Your task to perform on an android device: Search for sushi restaurants on Maps Image 0: 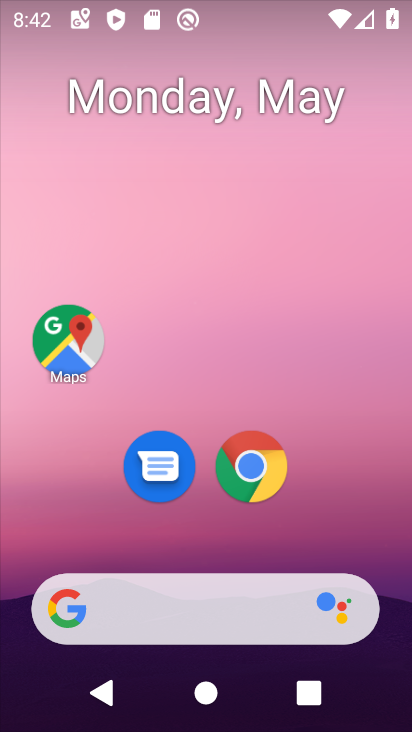
Step 0: drag from (243, 644) to (284, 224)
Your task to perform on an android device: Search for sushi restaurants on Maps Image 1: 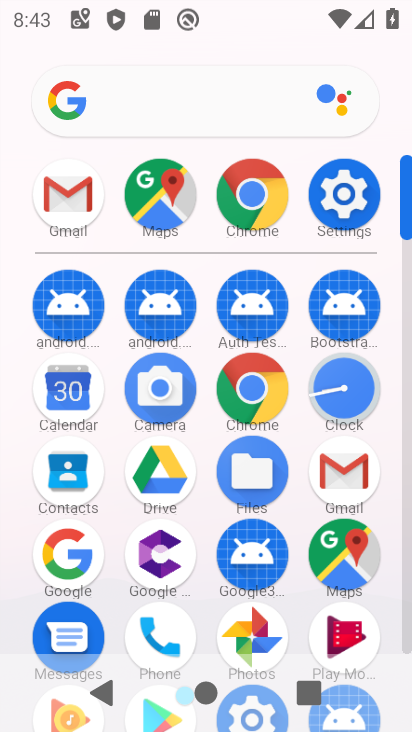
Step 1: click (169, 198)
Your task to perform on an android device: Search for sushi restaurants on Maps Image 2: 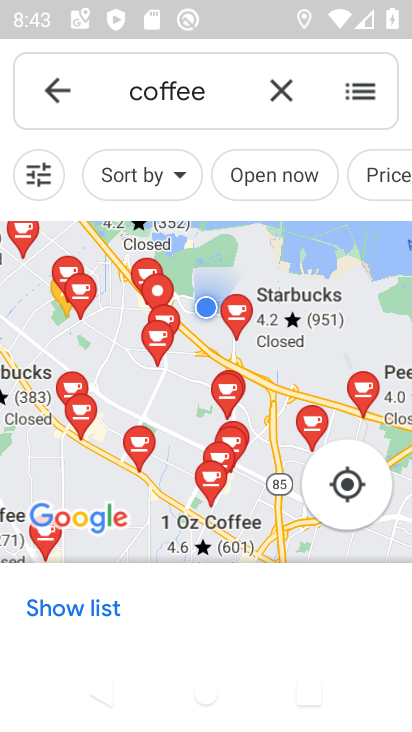
Step 2: click (284, 90)
Your task to perform on an android device: Search for sushi restaurants on Maps Image 3: 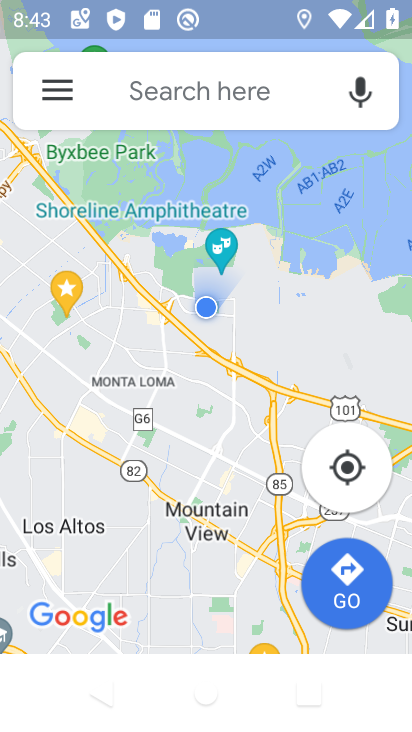
Step 3: click (193, 88)
Your task to perform on an android device: Search for sushi restaurants on Maps Image 4: 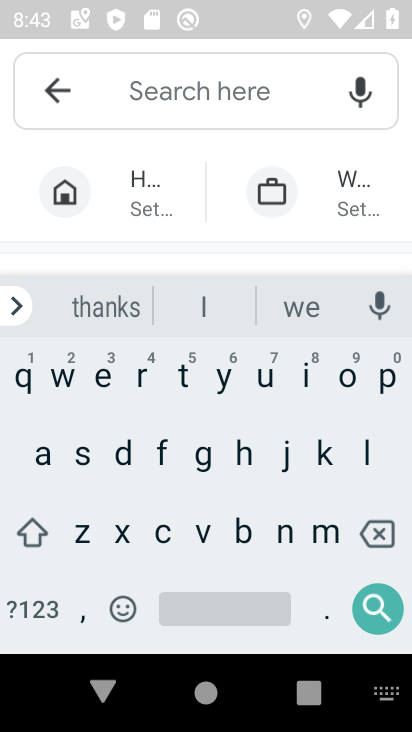
Step 4: click (84, 458)
Your task to perform on an android device: Search for sushi restaurants on Maps Image 5: 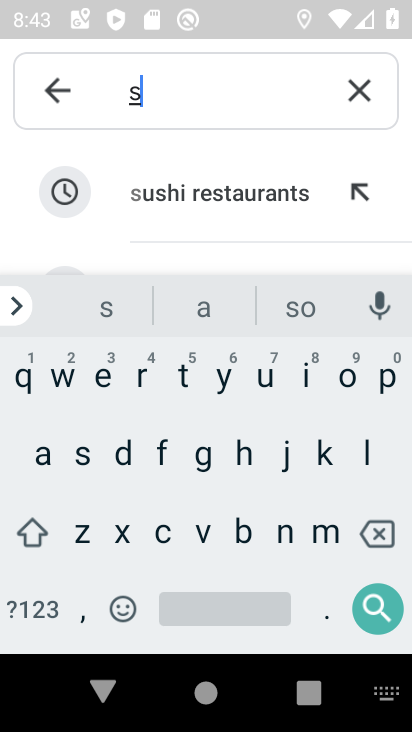
Step 5: click (269, 383)
Your task to perform on an android device: Search for sushi restaurants on Maps Image 6: 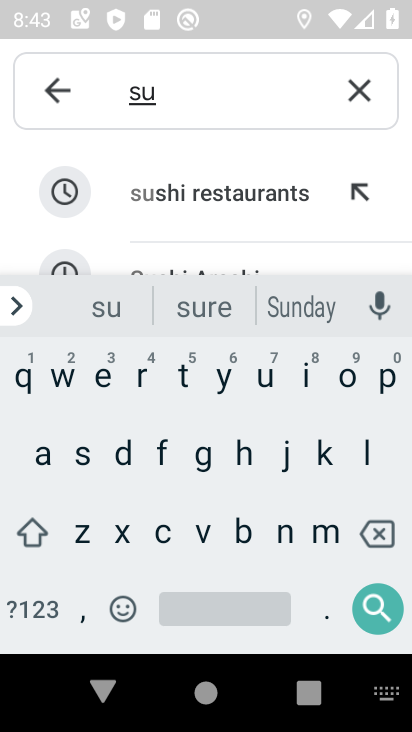
Step 6: click (203, 193)
Your task to perform on an android device: Search for sushi restaurants on Maps Image 7: 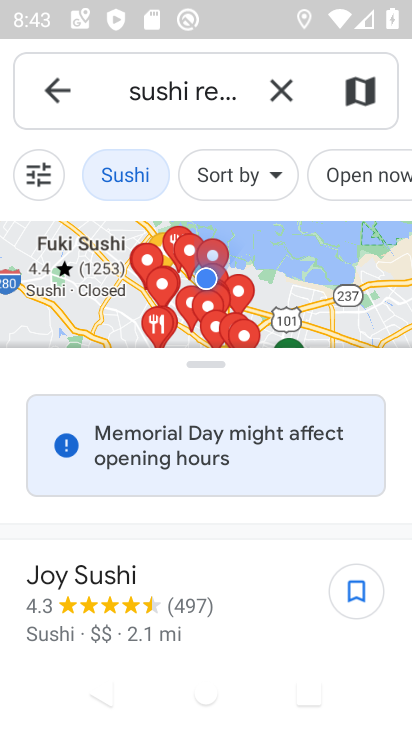
Step 7: click (125, 279)
Your task to perform on an android device: Search for sushi restaurants on Maps Image 8: 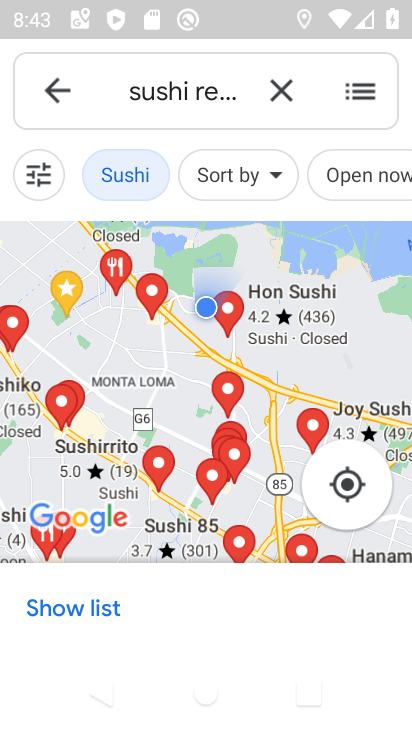
Step 8: task complete